Your task to perform on an android device: Go to privacy settings Image 0: 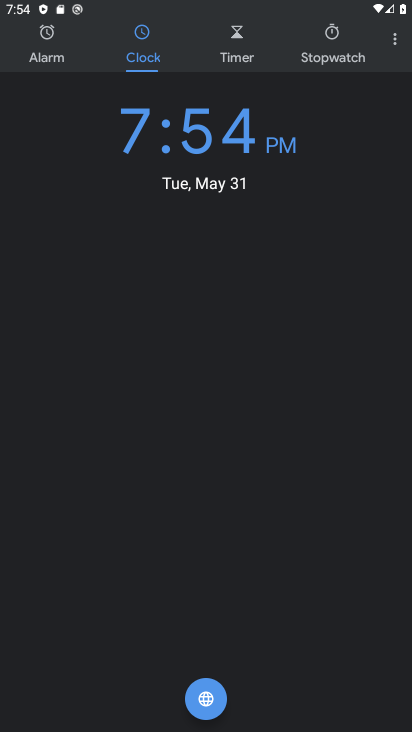
Step 0: press home button
Your task to perform on an android device: Go to privacy settings Image 1: 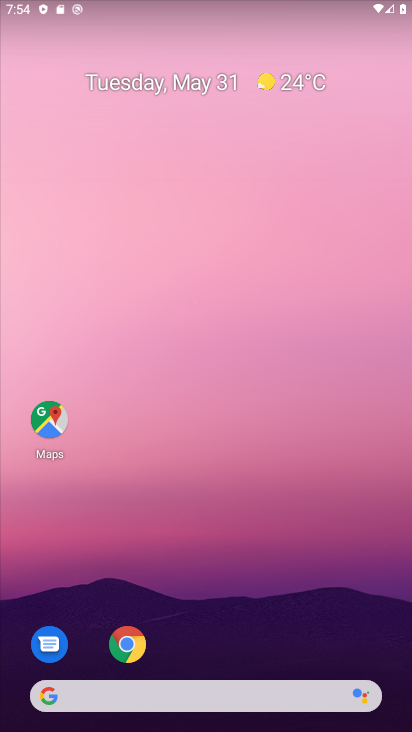
Step 1: drag from (353, 616) to (361, 218)
Your task to perform on an android device: Go to privacy settings Image 2: 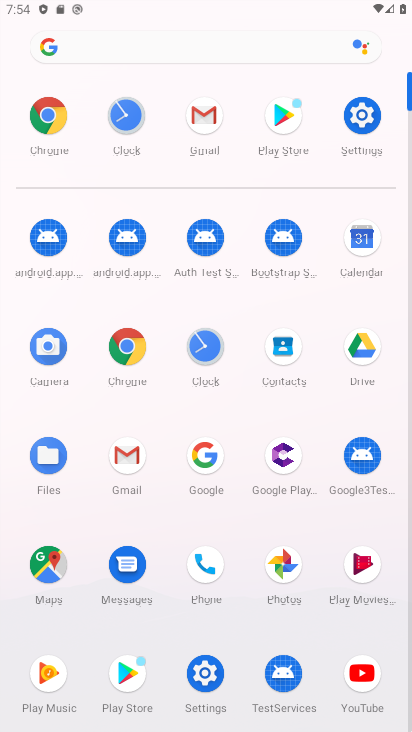
Step 2: click (207, 679)
Your task to perform on an android device: Go to privacy settings Image 3: 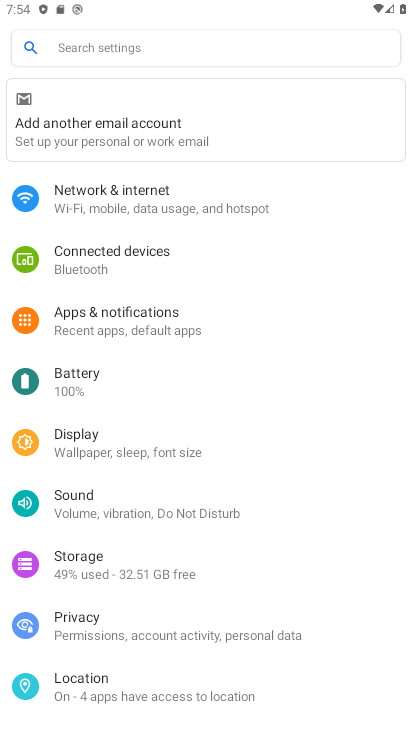
Step 3: click (175, 646)
Your task to perform on an android device: Go to privacy settings Image 4: 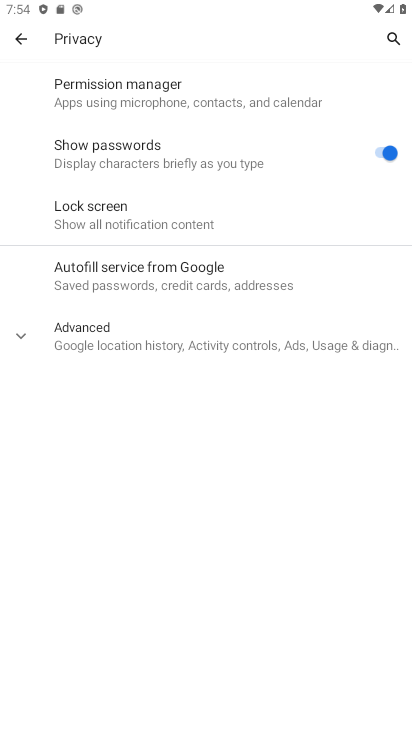
Step 4: task complete